Your task to perform on an android device: check battery use Image 0: 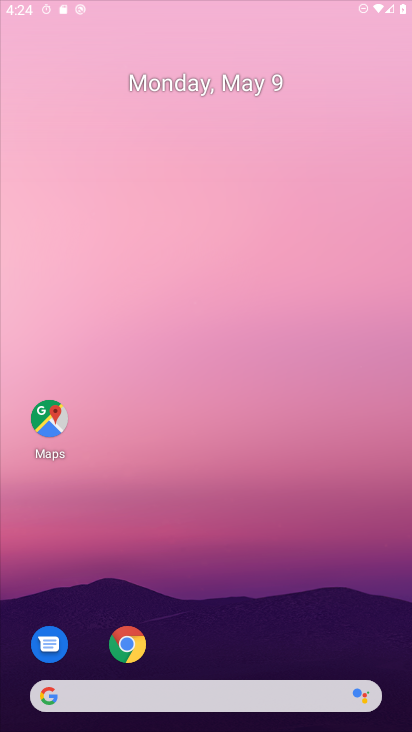
Step 0: drag from (226, 483) to (221, 216)
Your task to perform on an android device: check battery use Image 1: 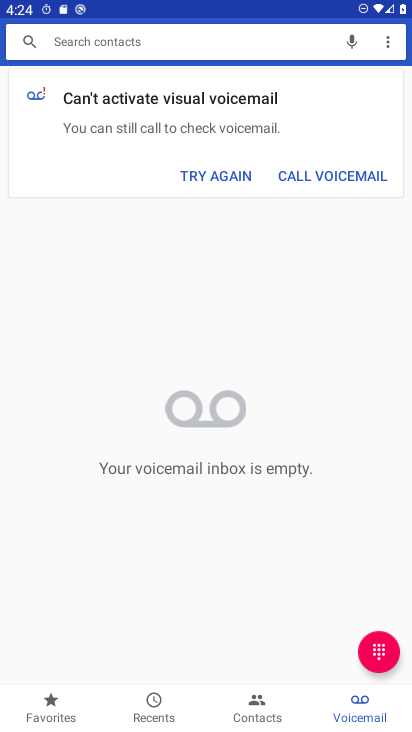
Step 1: press home button
Your task to perform on an android device: check battery use Image 2: 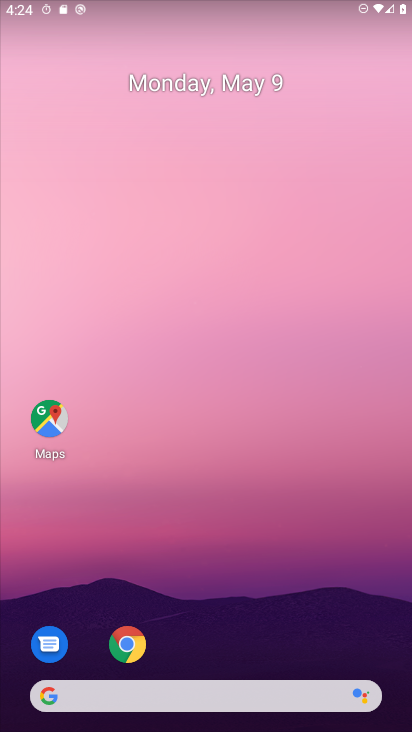
Step 2: drag from (283, 609) to (268, 135)
Your task to perform on an android device: check battery use Image 3: 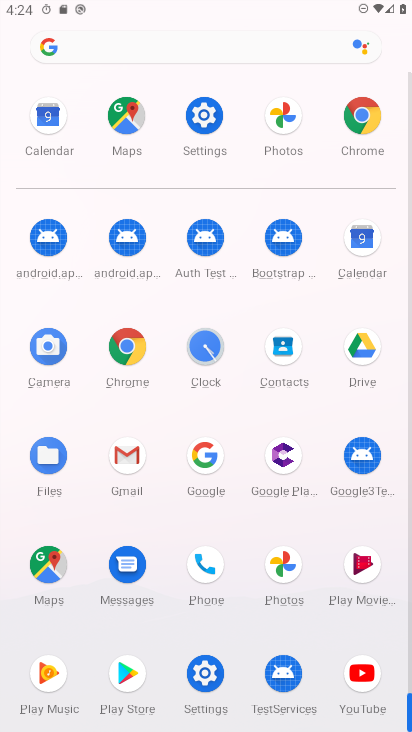
Step 3: click (206, 146)
Your task to perform on an android device: check battery use Image 4: 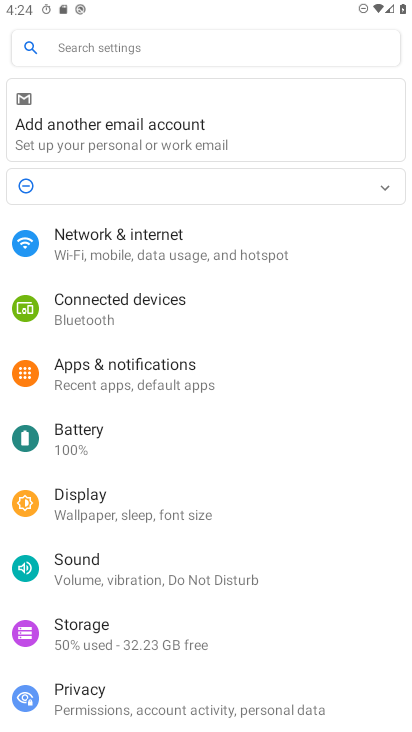
Step 4: click (81, 437)
Your task to perform on an android device: check battery use Image 5: 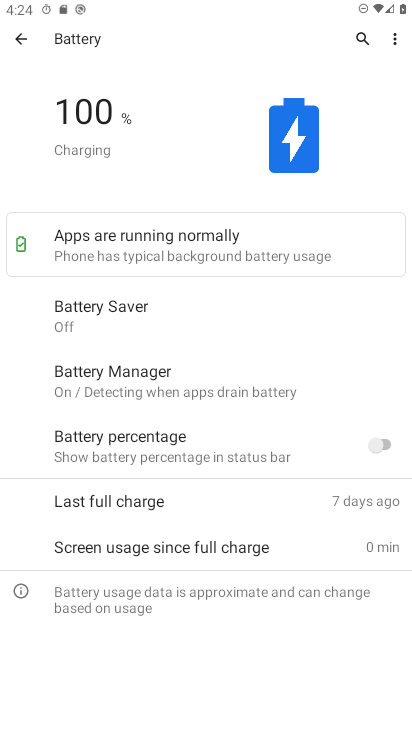
Step 5: task complete